Your task to perform on an android device: toggle pop-ups in chrome Image 0: 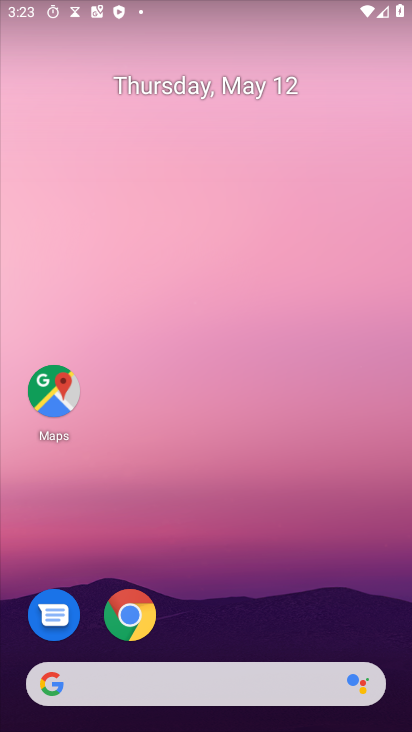
Step 0: press home button
Your task to perform on an android device: toggle pop-ups in chrome Image 1: 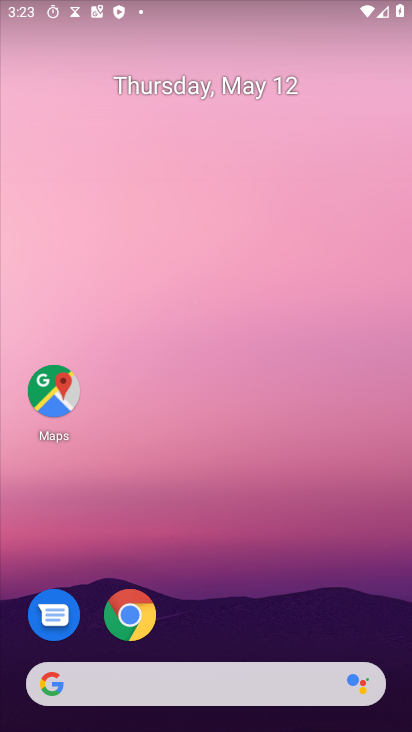
Step 1: click (127, 614)
Your task to perform on an android device: toggle pop-ups in chrome Image 2: 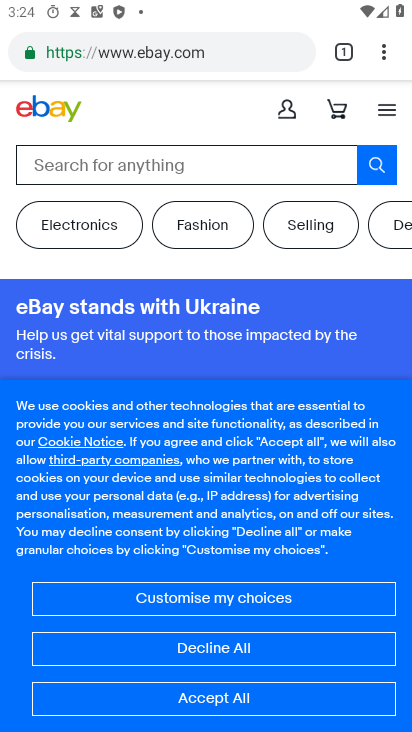
Step 2: click (377, 57)
Your task to perform on an android device: toggle pop-ups in chrome Image 3: 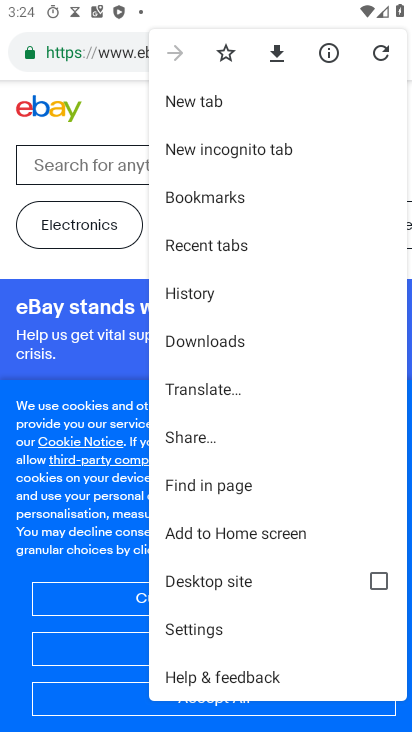
Step 3: click (215, 631)
Your task to perform on an android device: toggle pop-ups in chrome Image 4: 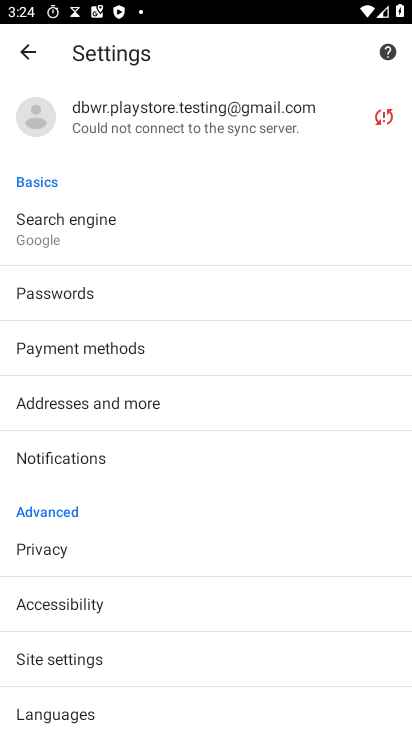
Step 4: click (87, 669)
Your task to perform on an android device: toggle pop-ups in chrome Image 5: 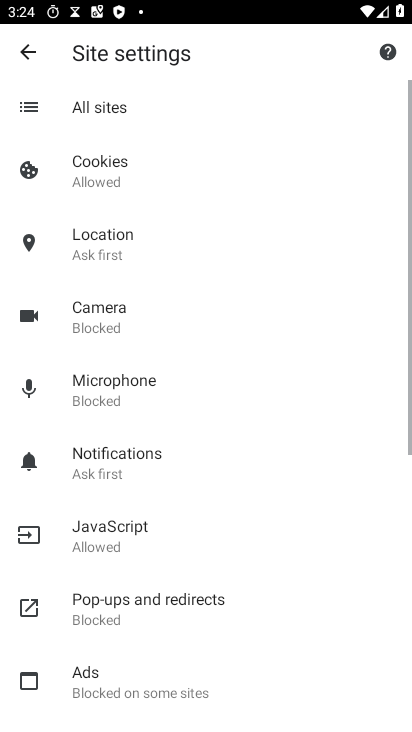
Step 5: drag from (65, 705) to (169, 333)
Your task to perform on an android device: toggle pop-ups in chrome Image 6: 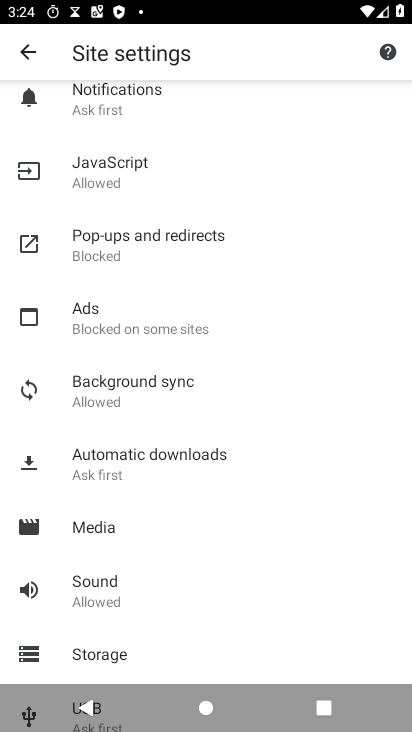
Step 6: click (116, 251)
Your task to perform on an android device: toggle pop-ups in chrome Image 7: 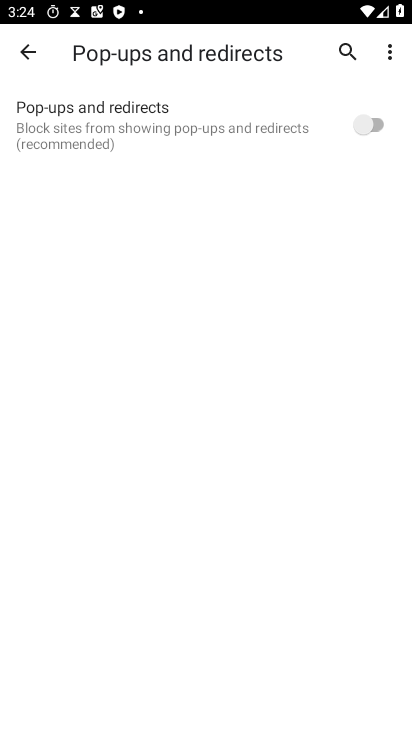
Step 7: click (375, 128)
Your task to perform on an android device: toggle pop-ups in chrome Image 8: 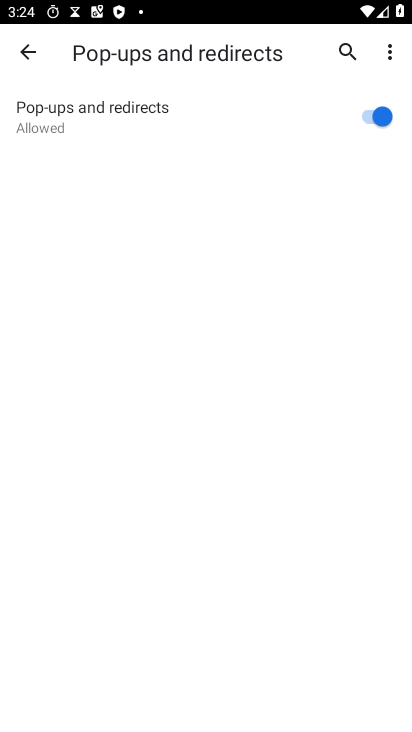
Step 8: task complete